Your task to perform on an android device: Add "acer nitro" to the cart on amazon Image 0: 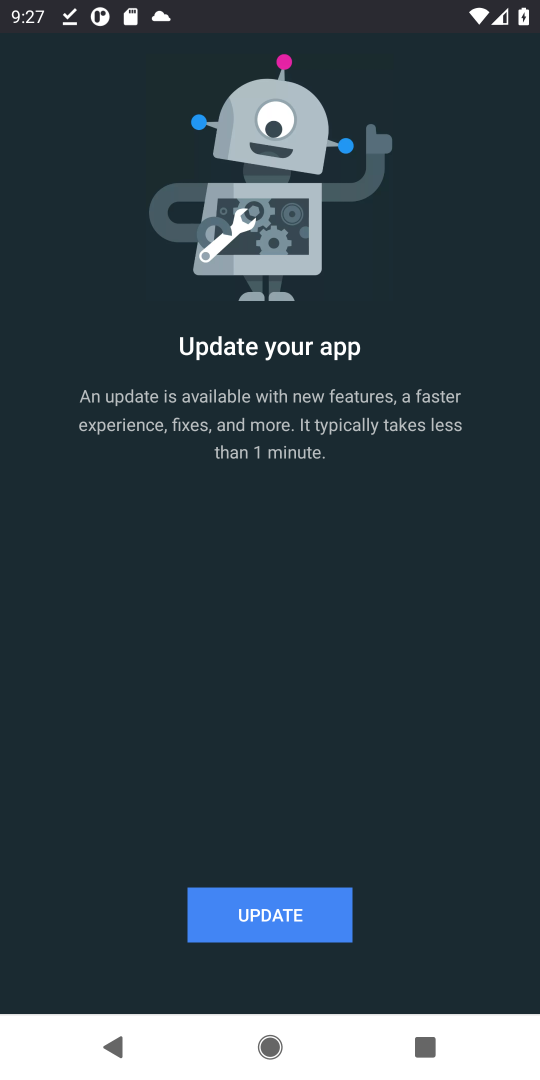
Step 0: press home button
Your task to perform on an android device: Add "acer nitro" to the cart on amazon Image 1: 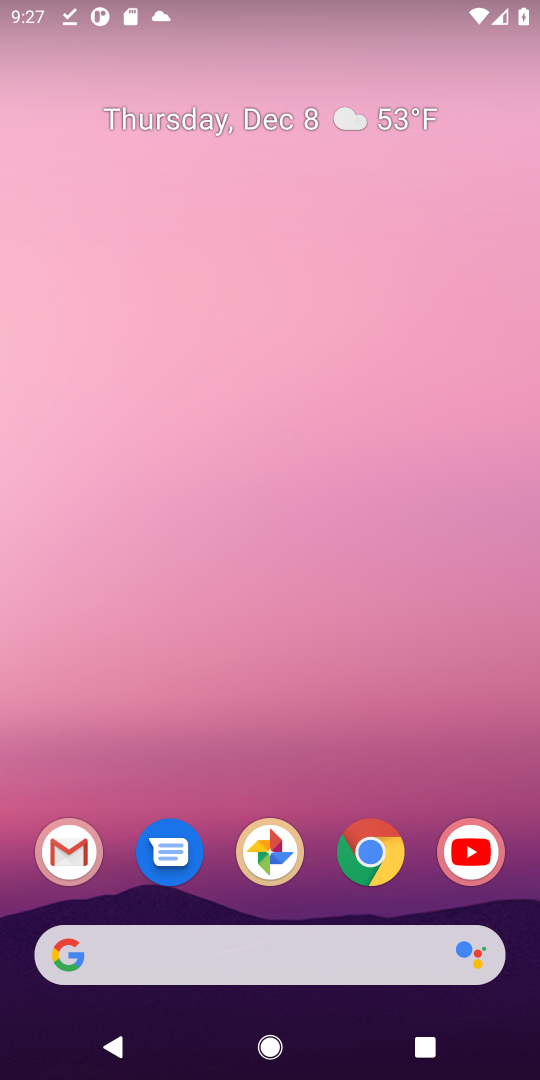
Step 1: click (290, 982)
Your task to perform on an android device: Add "acer nitro" to the cart on amazon Image 2: 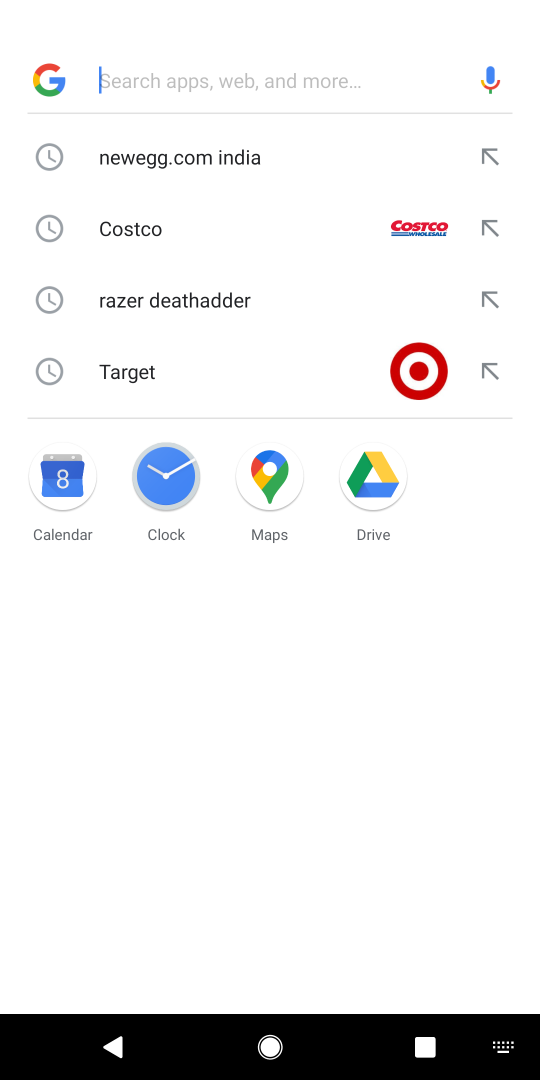
Step 2: type "amazon"
Your task to perform on an android device: Add "acer nitro" to the cart on amazon Image 3: 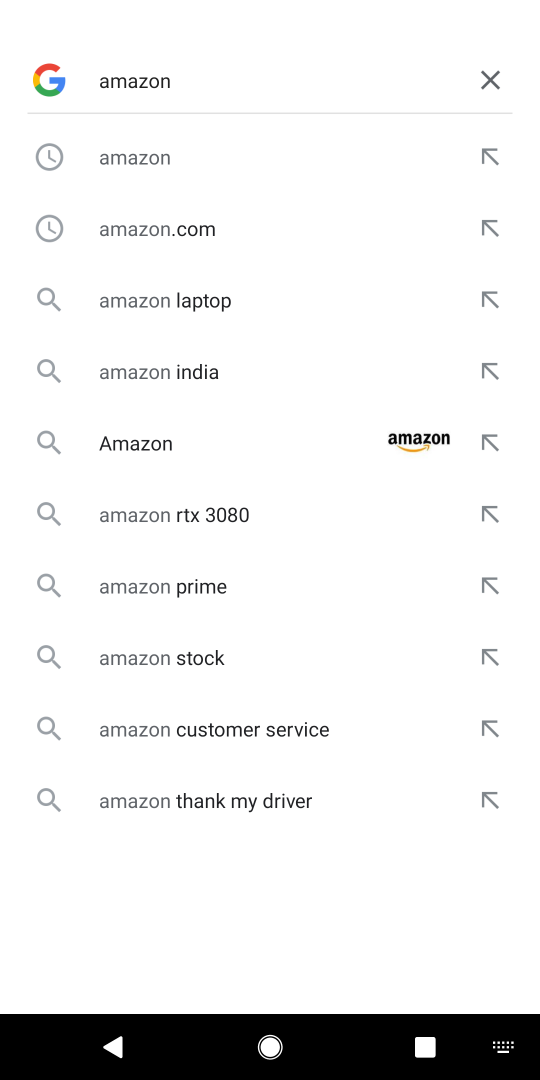
Step 3: click (199, 441)
Your task to perform on an android device: Add "acer nitro" to the cart on amazon Image 4: 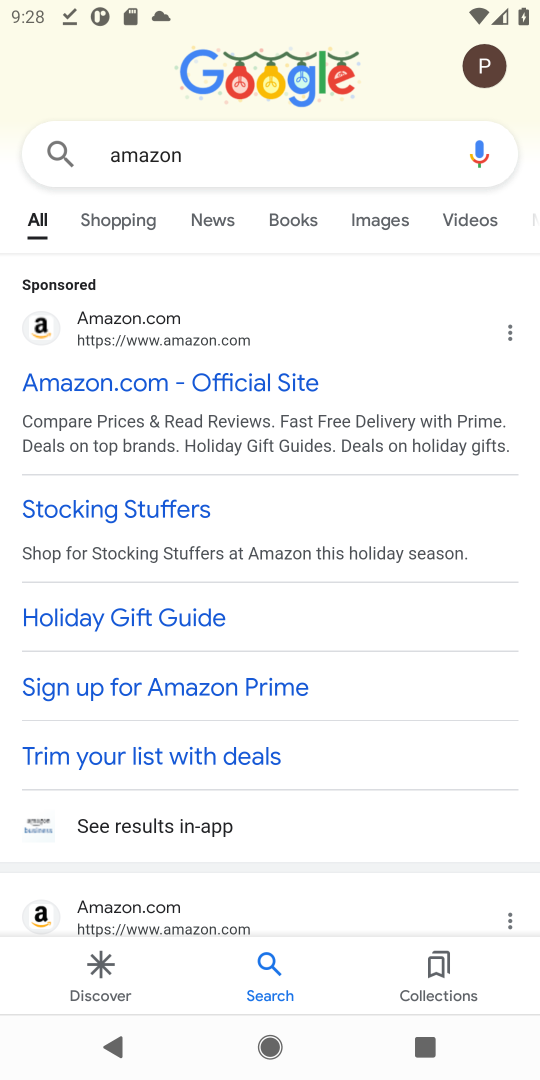
Step 4: click (127, 388)
Your task to perform on an android device: Add "acer nitro" to the cart on amazon Image 5: 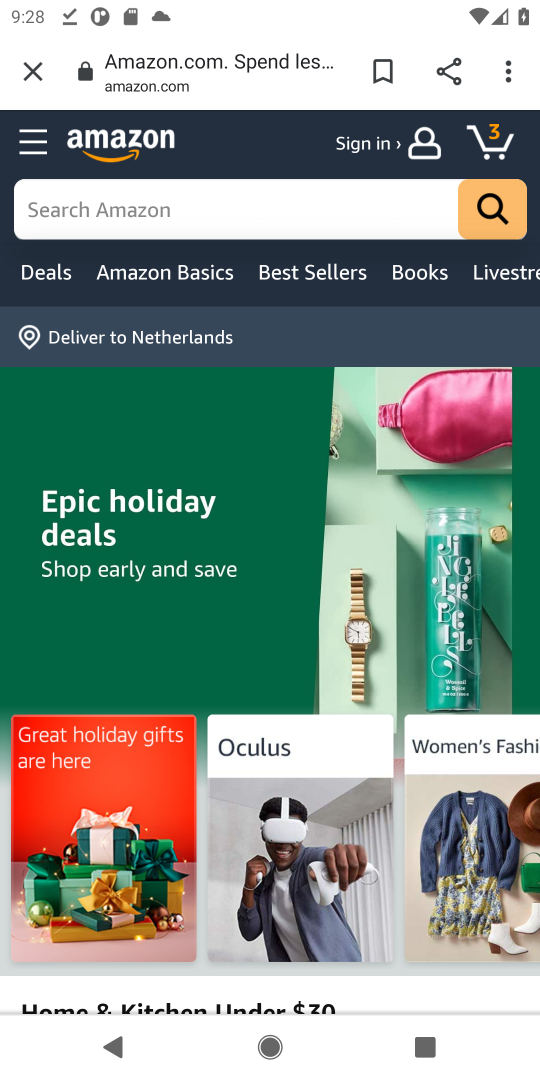
Step 5: click (169, 206)
Your task to perform on an android device: Add "acer nitro" to the cart on amazon Image 6: 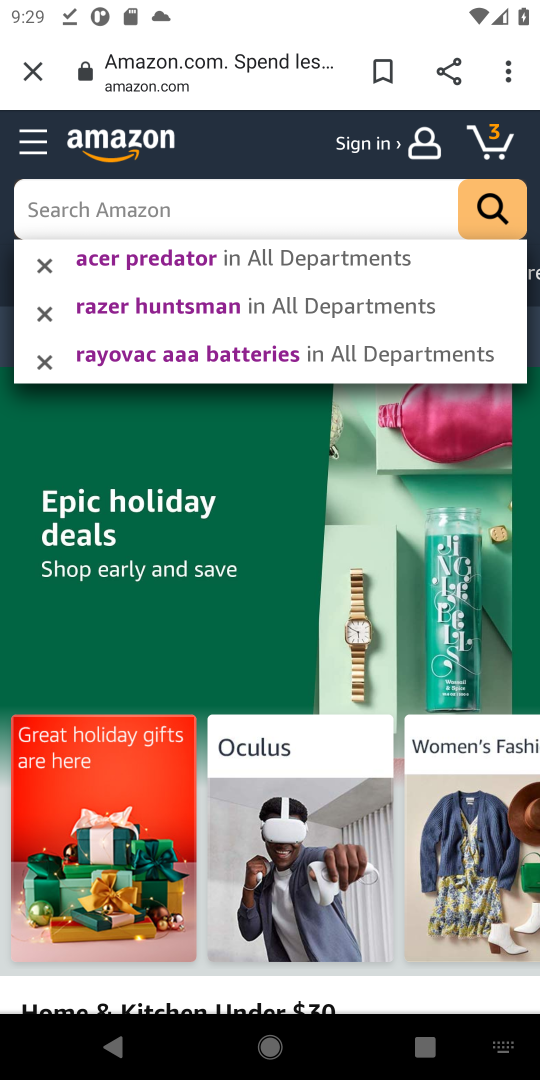
Step 6: type "acer nitro"
Your task to perform on an android device: Add "acer nitro" to the cart on amazon Image 7: 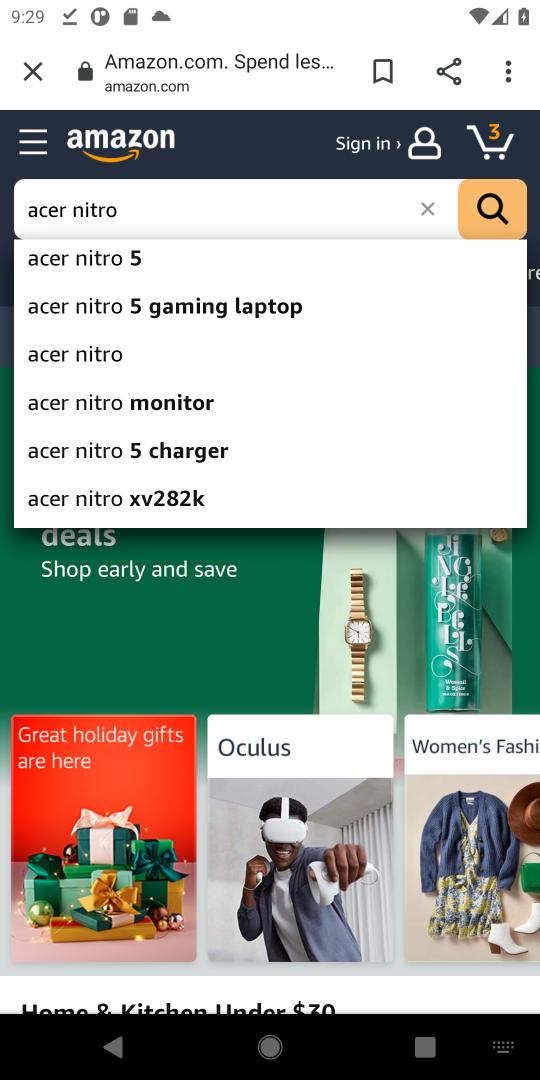
Step 7: click (113, 346)
Your task to perform on an android device: Add "acer nitro" to the cart on amazon Image 8: 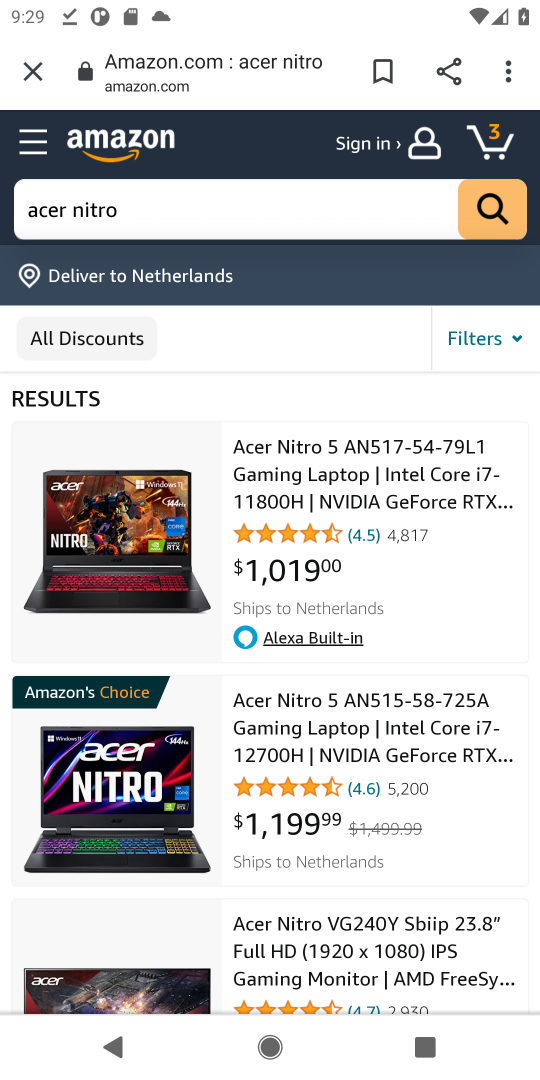
Step 8: click (501, 211)
Your task to perform on an android device: Add "acer nitro" to the cart on amazon Image 9: 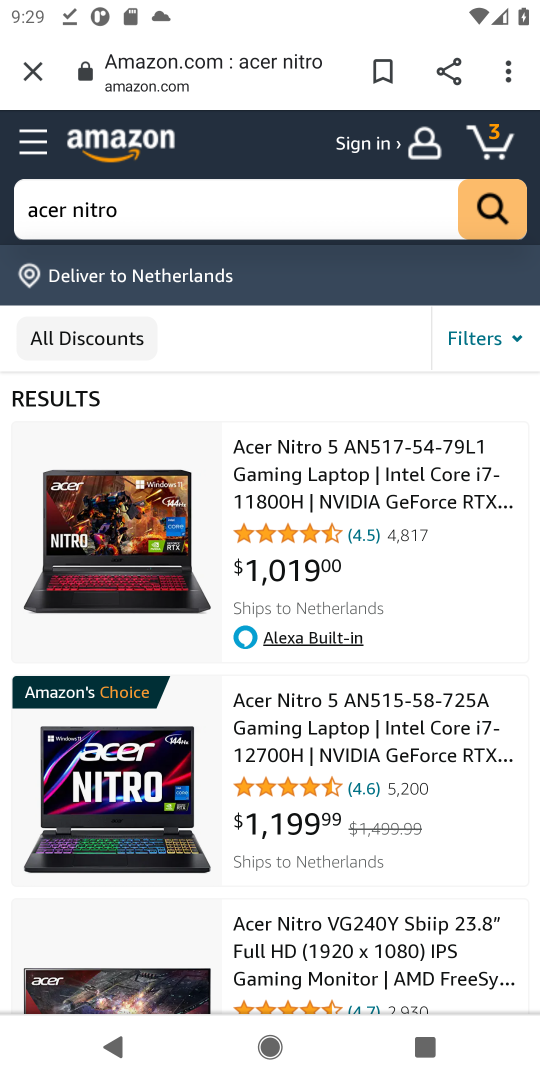
Step 9: click (282, 505)
Your task to perform on an android device: Add "acer nitro" to the cart on amazon Image 10: 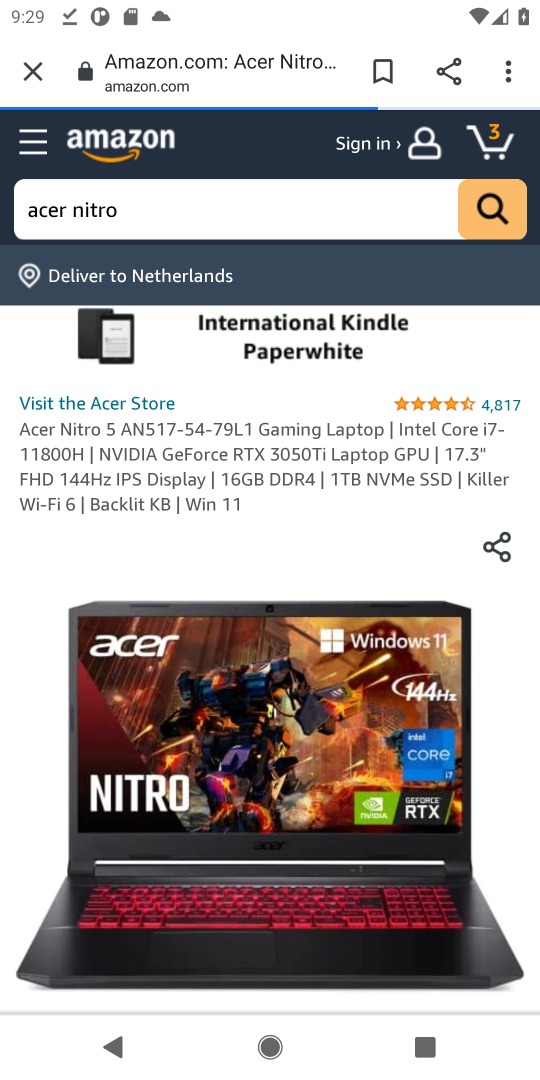
Step 10: task complete